Your task to perform on an android device: Open privacy settings Image 0: 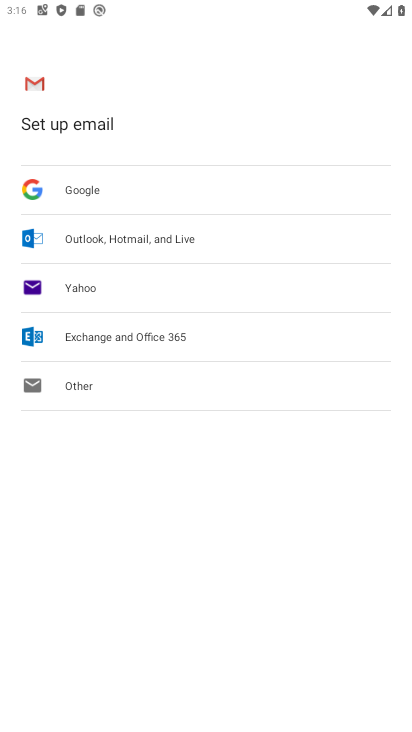
Step 0: press home button
Your task to perform on an android device: Open privacy settings Image 1: 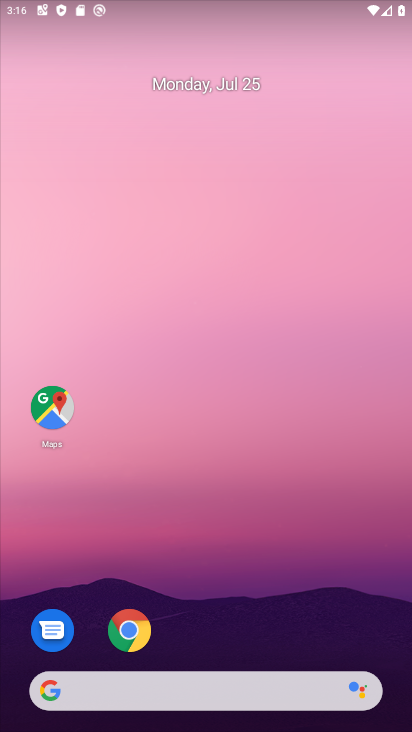
Step 1: drag from (236, 684) to (212, 87)
Your task to perform on an android device: Open privacy settings Image 2: 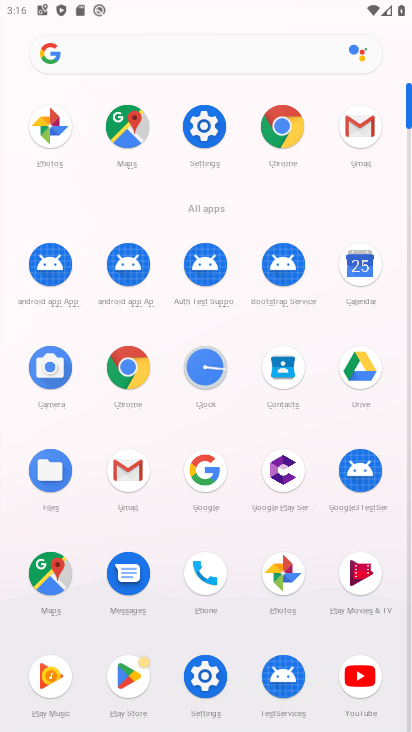
Step 2: click (203, 131)
Your task to perform on an android device: Open privacy settings Image 3: 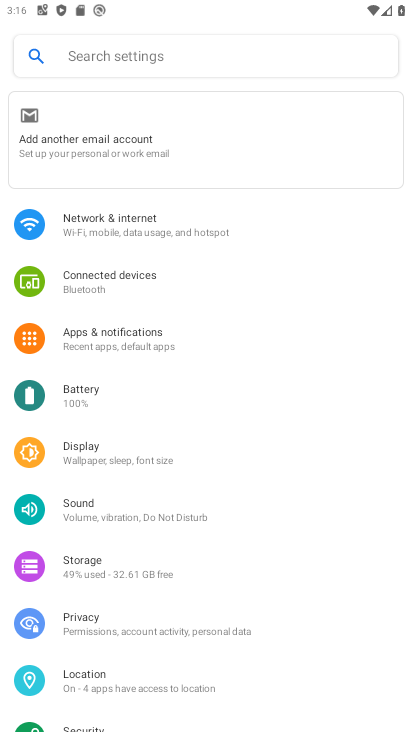
Step 3: drag from (117, 602) to (87, 199)
Your task to perform on an android device: Open privacy settings Image 4: 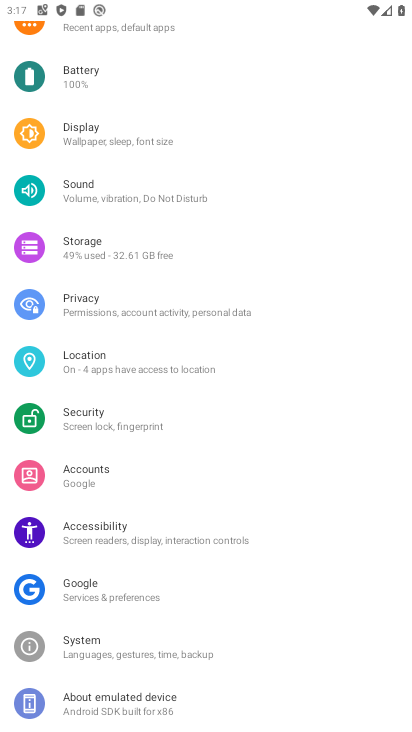
Step 4: click (122, 303)
Your task to perform on an android device: Open privacy settings Image 5: 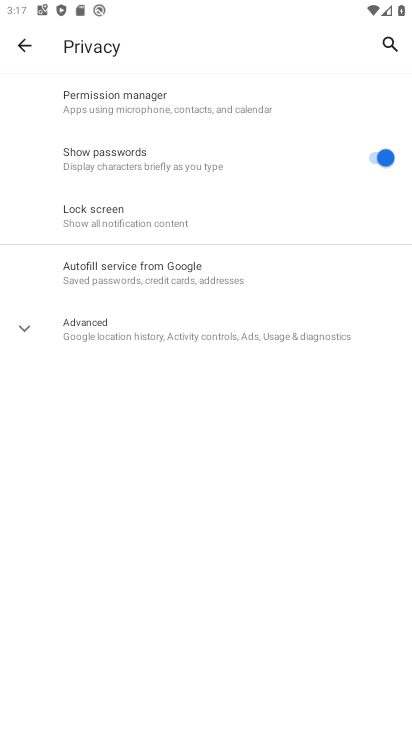
Step 5: task complete